Your task to perform on an android device: create a new album in the google photos Image 0: 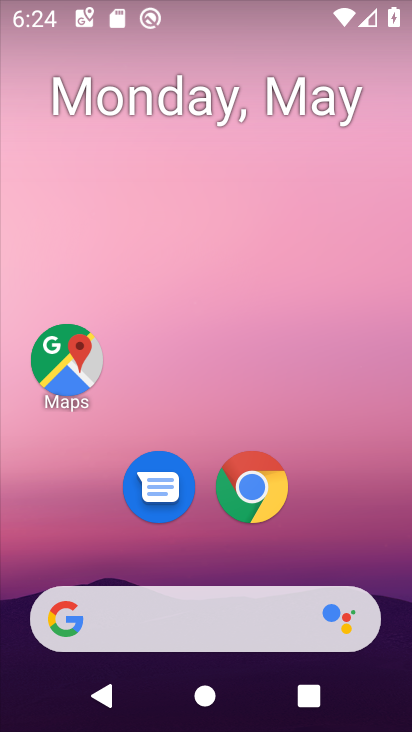
Step 0: drag from (205, 545) to (270, 158)
Your task to perform on an android device: create a new album in the google photos Image 1: 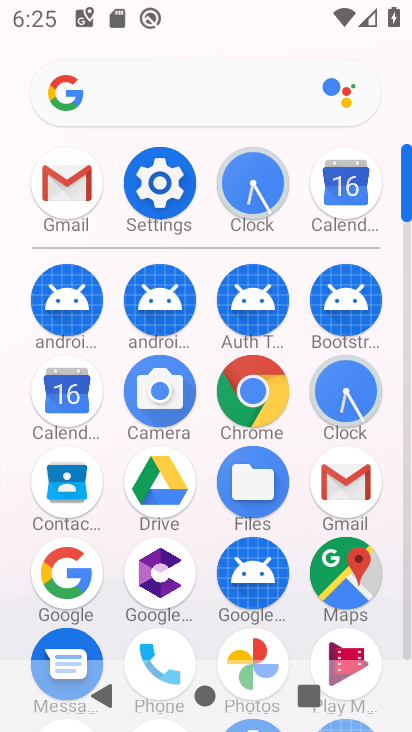
Step 1: click (251, 650)
Your task to perform on an android device: create a new album in the google photos Image 2: 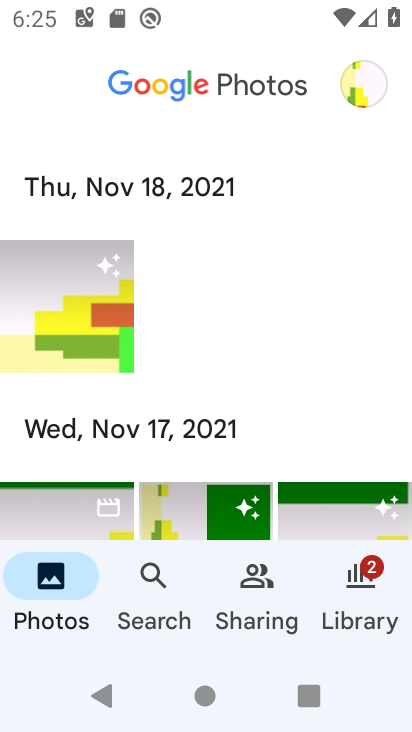
Step 2: click (158, 588)
Your task to perform on an android device: create a new album in the google photos Image 3: 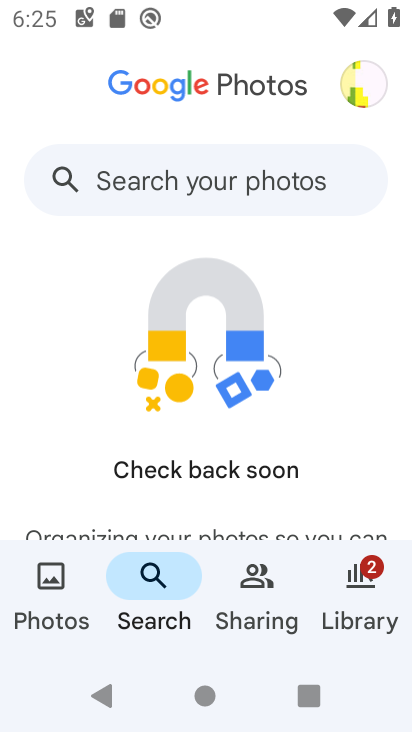
Step 3: click (254, 584)
Your task to perform on an android device: create a new album in the google photos Image 4: 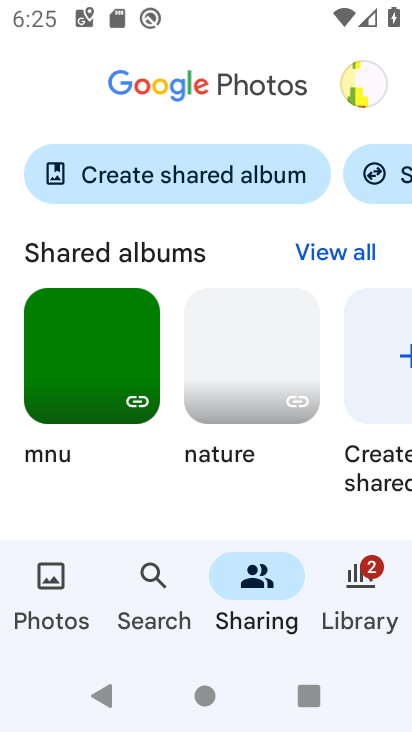
Step 4: click (208, 180)
Your task to perform on an android device: create a new album in the google photos Image 5: 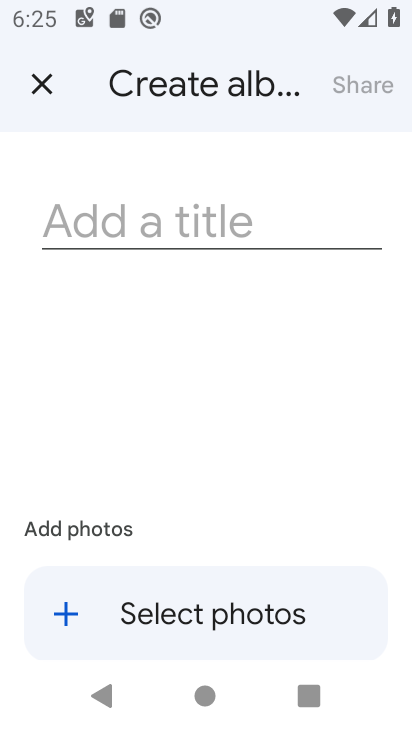
Step 5: click (85, 619)
Your task to perform on an android device: create a new album in the google photos Image 6: 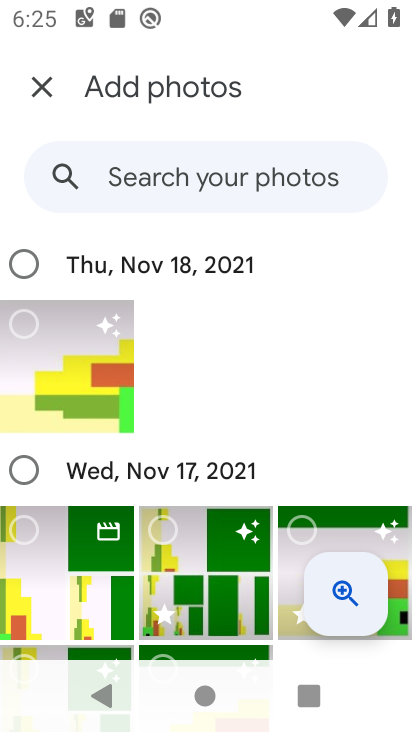
Step 6: click (28, 470)
Your task to perform on an android device: create a new album in the google photos Image 7: 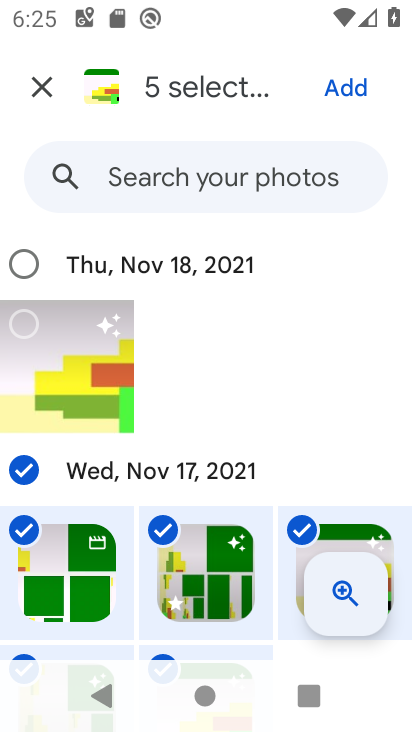
Step 7: click (353, 96)
Your task to perform on an android device: create a new album in the google photos Image 8: 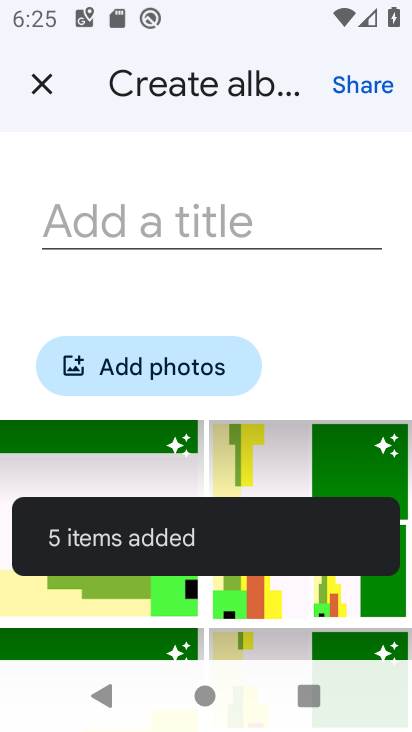
Step 8: click (157, 213)
Your task to perform on an android device: create a new album in the google photos Image 9: 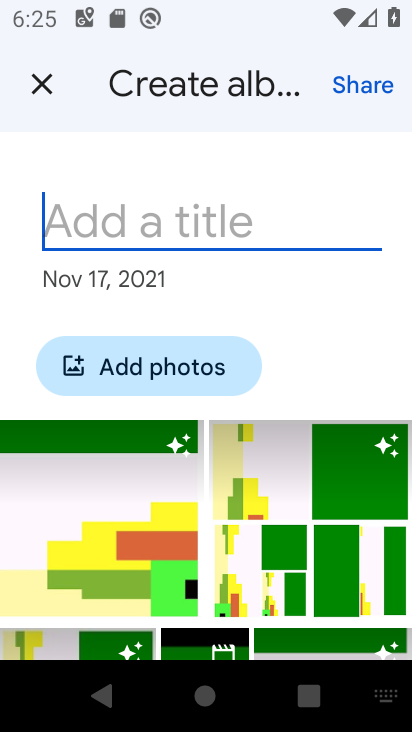
Step 9: type " bvcgfg"
Your task to perform on an android device: create a new album in the google photos Image 10: 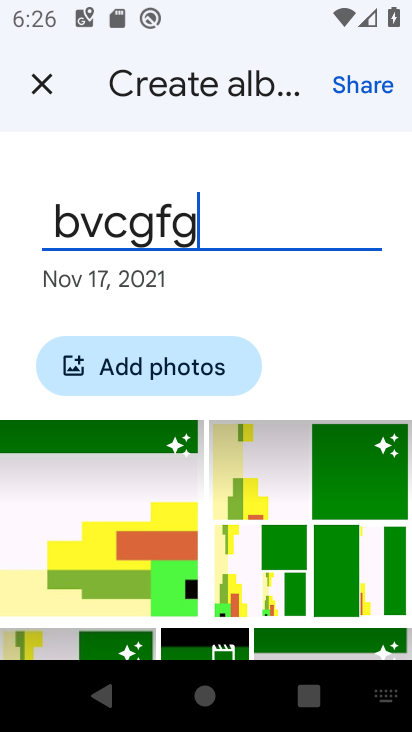
Step 10: click (355, 151)
Your task to perform on an android device: create a new album in the google photos Image 11: 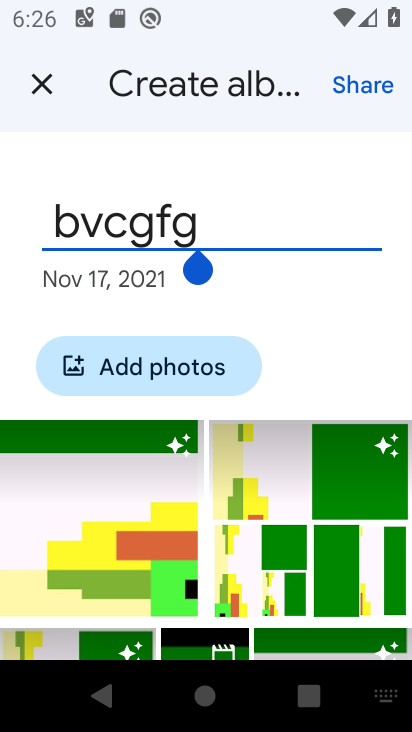
Step 11: click (346, 363)
Your task to perform on an android device: create a new album in the google photos Image 12: 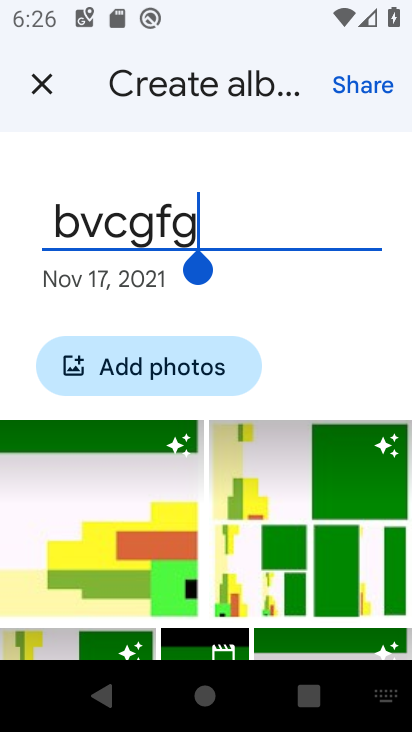
Step 12: task complete